Your task to perform on an android device: Go to Google maps Image 0: 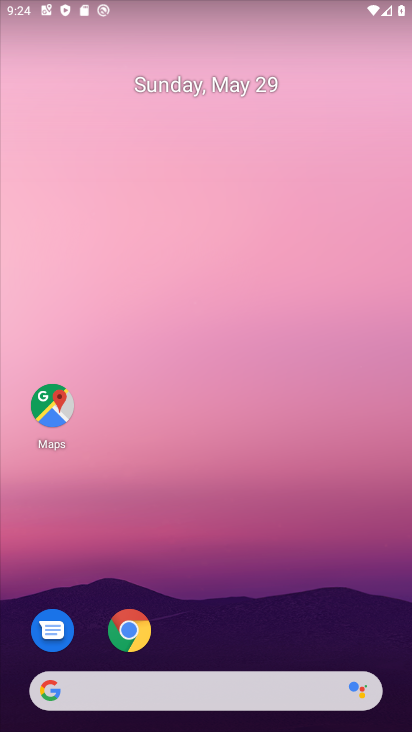
Step 0: click (59, 399)
Your task to perform on an android device: Go to Google maps Image 1: 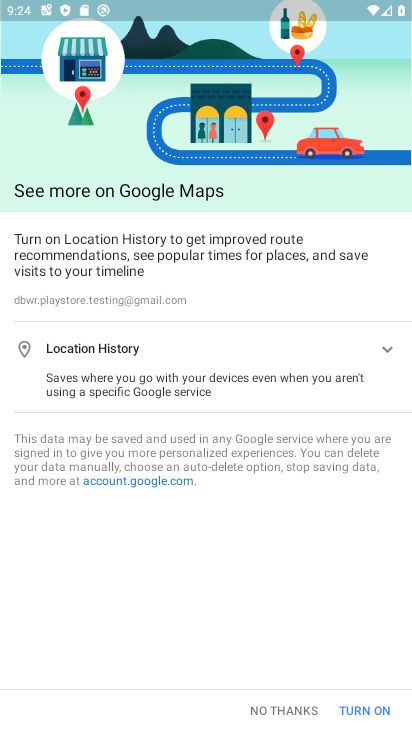
Step 1: click (344, 709)
Your task to perform on an android device: Go to Google maps Image 2: 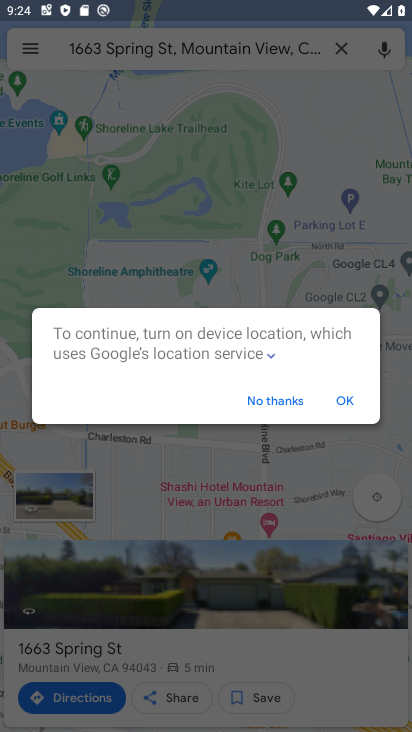
Step 2: click (344, 392)
Your task to perform on an android device: Go to Google maps Image 3: 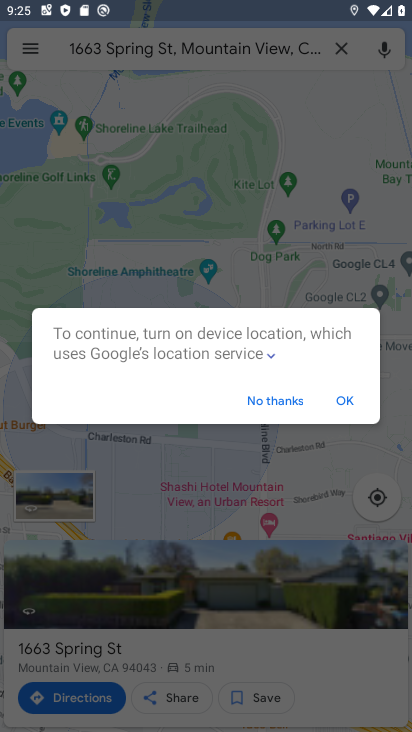
Step 3: click (348, 405)
Your task to perform on an android device: Go to Google maps Image 4: 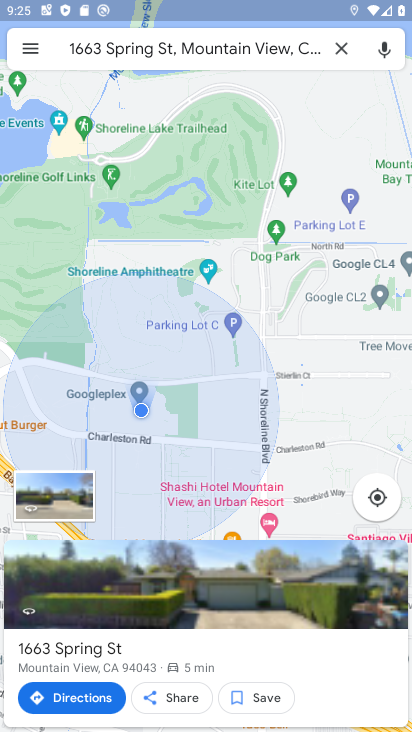
Step 4: task complete